Your task to perform on an android device: turn off location Image 0: 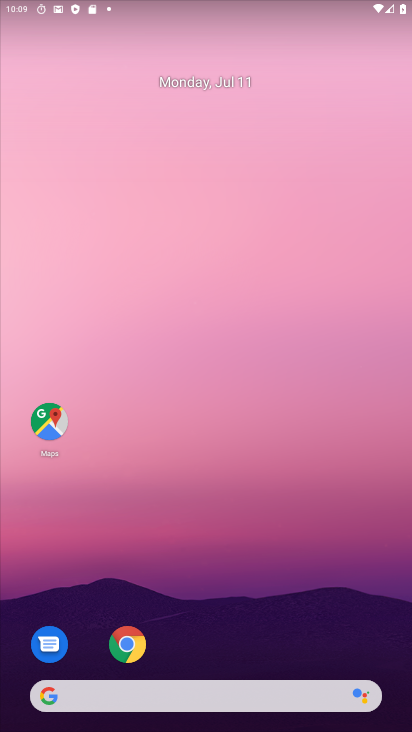
Step 0: drag from (235, 629) to (236, 8)
Your task to perform on an android device: turn off location Image 1: 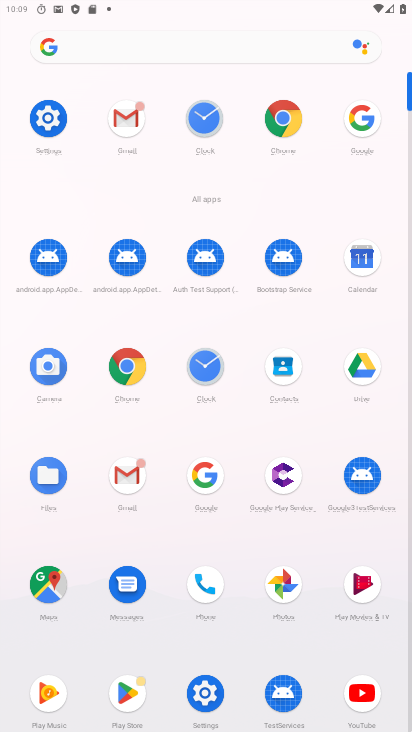
Step 1: click (47, 114)
Your task to perform on an android device: turn off location Image 2: 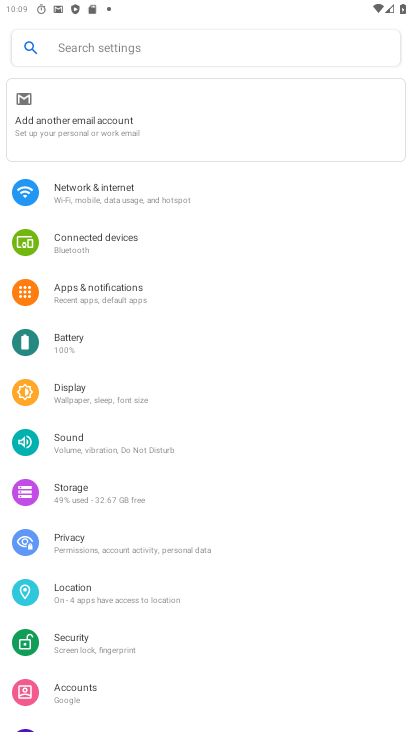
Step 2: click (90, 593)
Your task to perform on an android device: turn off location Image 3: 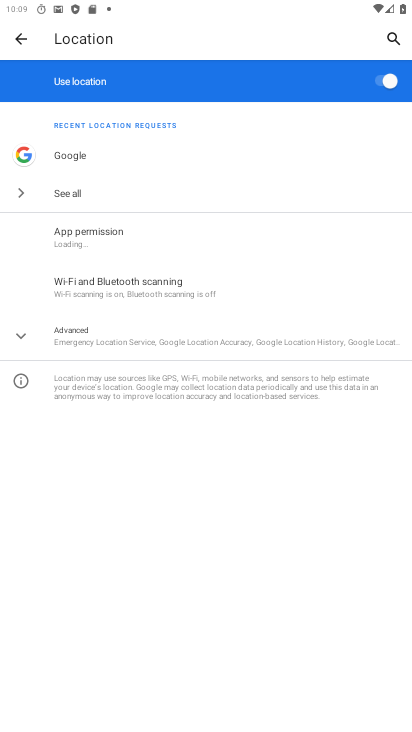
Step 3: click (385, 82)
Your task to perform on an android device: turn off location Image 4: 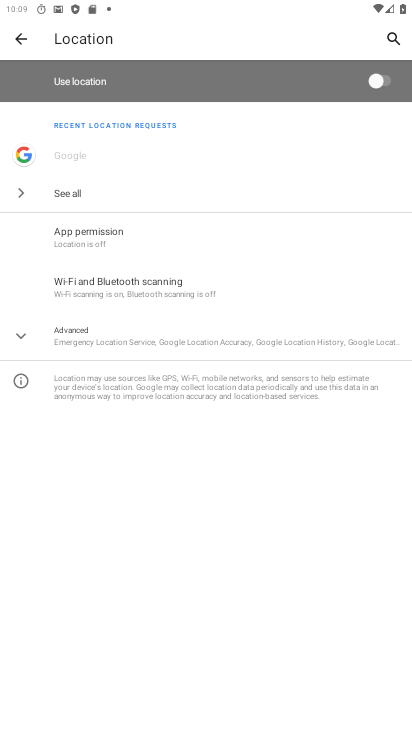
Step 4: task complete